Your task to perform on an android device: add a contact Image 0: 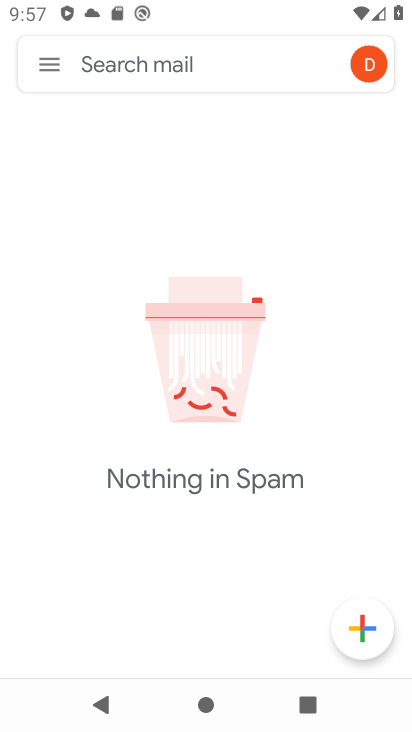
Step 0: press home button
Your task to perform on an android device: add a contact Image 1: 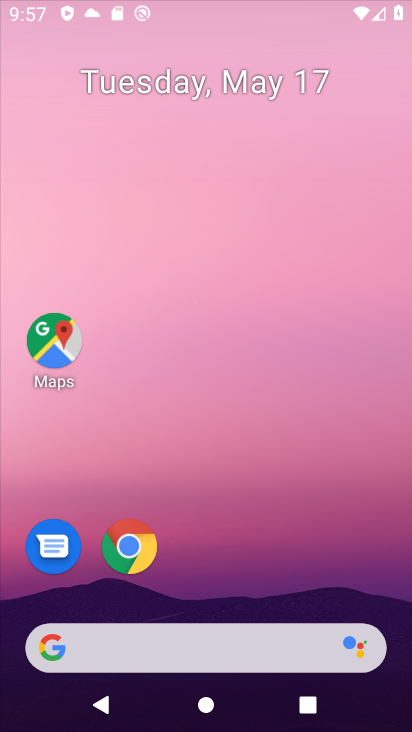
Step 1: drag from (286, 545) to (279, 191)
Your task to perform on an android device: add a contact Image 2: 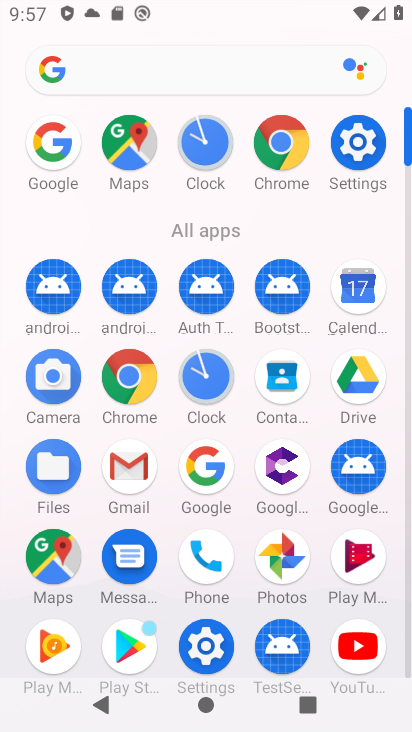
Step 2: click (219, 549)
Your task to perform on an android device: add a contact Image 3: 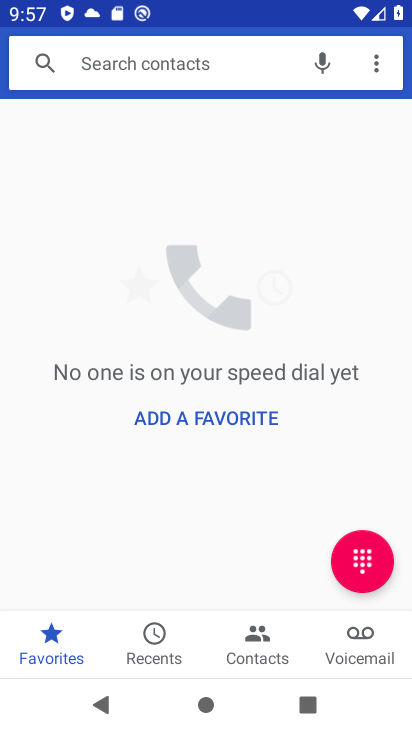
Step 3: click (204, 417)
Your task to perform on an android device: add a contact Image 4: 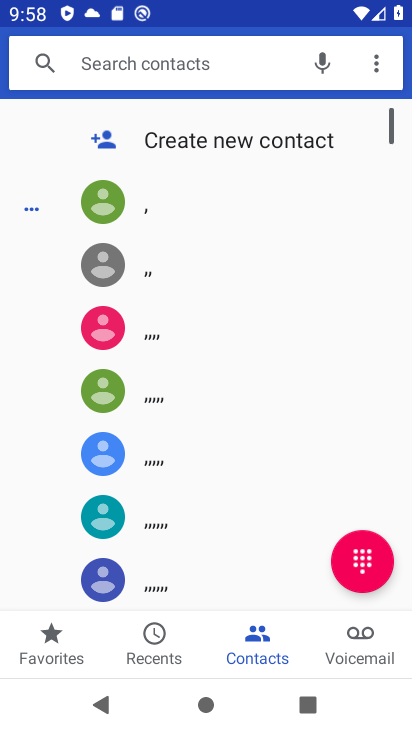
Step 4: click (167, 123)
Your task to perform on an android device: add a contact Image 5: 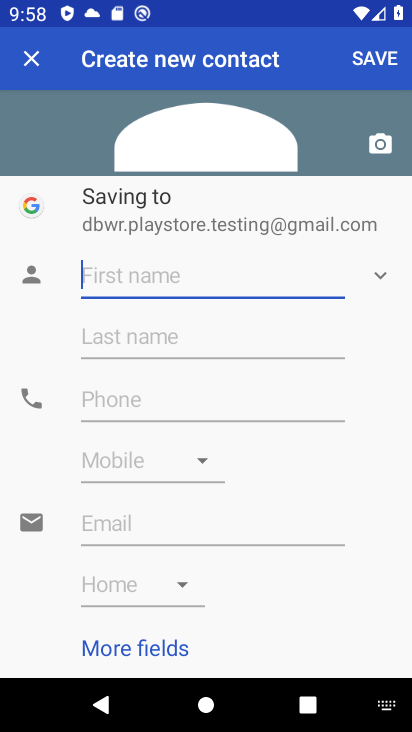
Step 5: click (166, 255)
Your task to perform on an android device: add a contact Image 6: 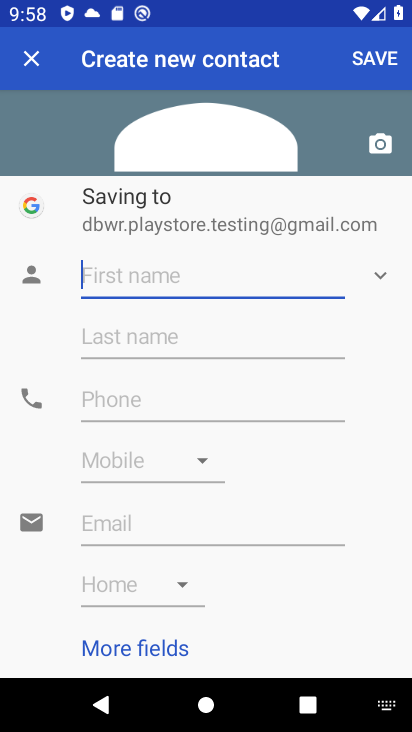
Step 6: click (148, 274)
Your task to perform on an android device: add a contact Image 7: 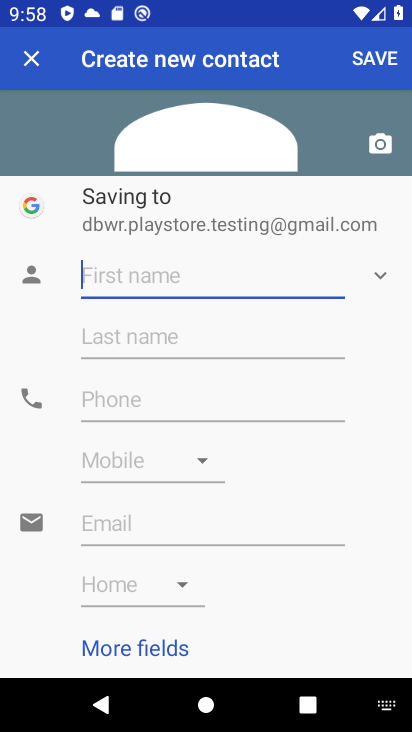
Step 7: type "iuiuiuui"
Your task to perform on an android device: add a contact Image 8: 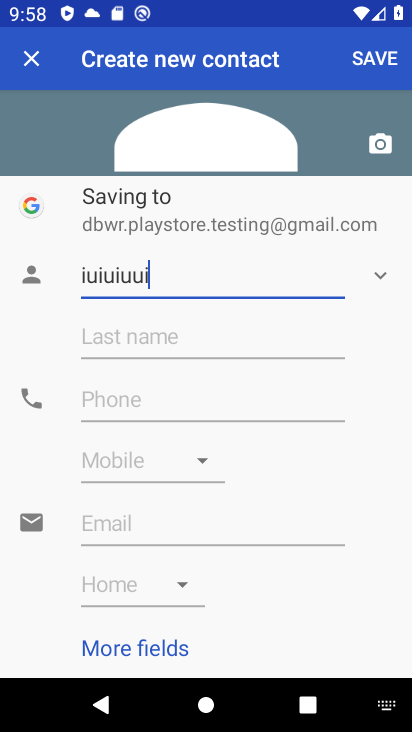
Step 8: click (164, 402)
Your task to perform on an android device: add a contact Image 9: 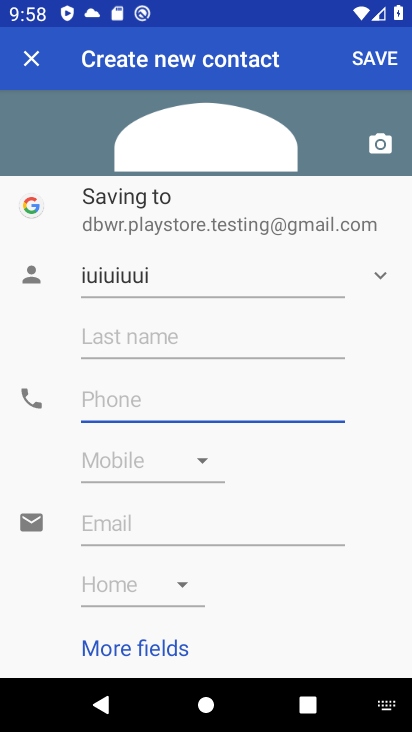
Step 9: type "098765432"
Your task to perform on an android device: add a contact Image 10: 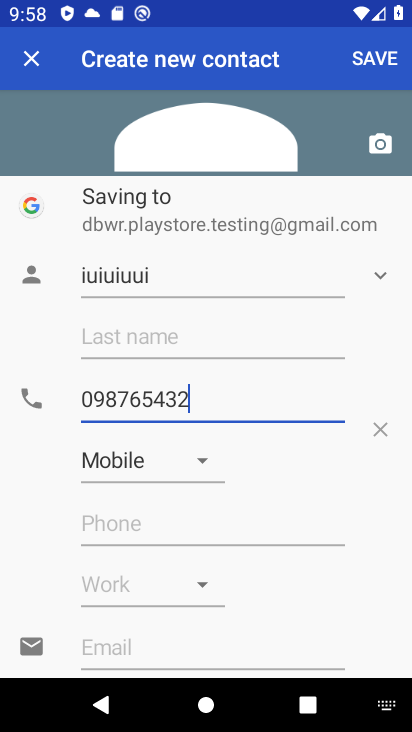
Step 10: click (389, 63)
Your task to perform on an android device: add a contact Image 11: 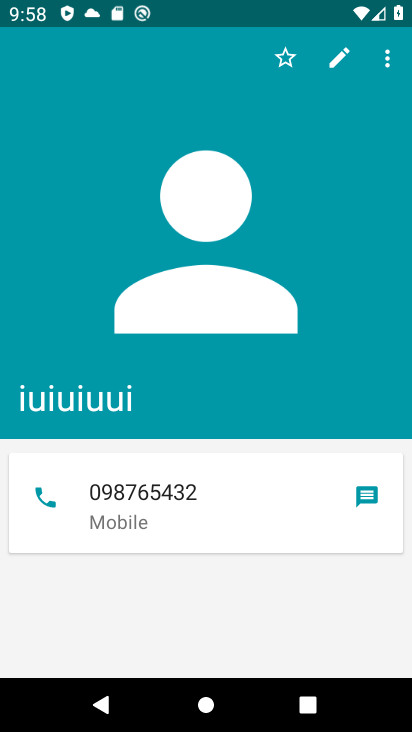
Step 11: task complete